Your task to perform on an android device: turn on notifications settings in the gmail app Image 0: 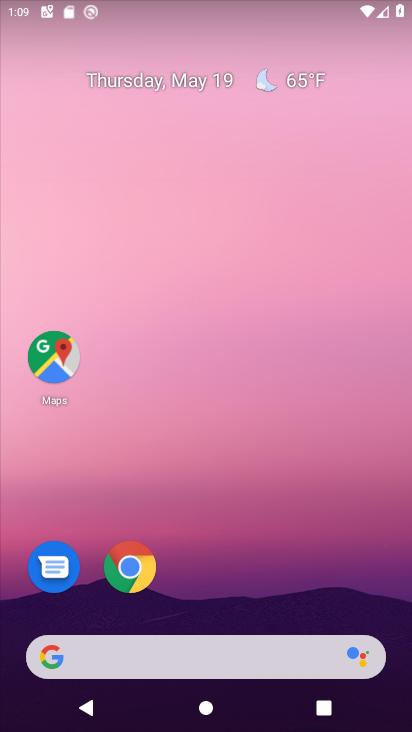
Step 0: click (303, 526)
Your task to perform on an android device: turn on notifications settings in the gmail app Image 1: 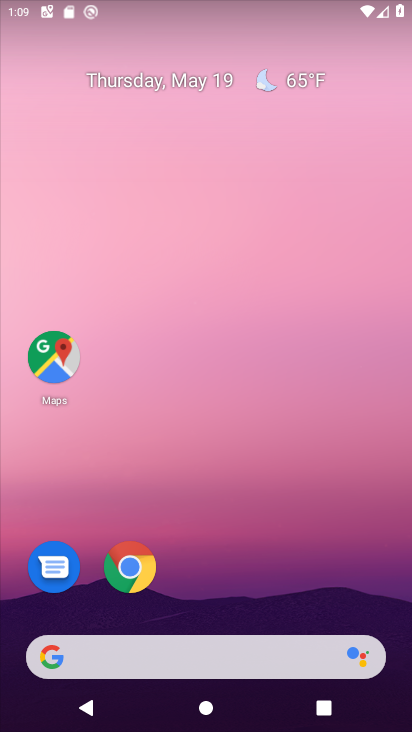
Step 1: drag from (303, 526) to (339, 27)
Your task to perform on an android device: turn on notifications settings in the gmail app Image 2: 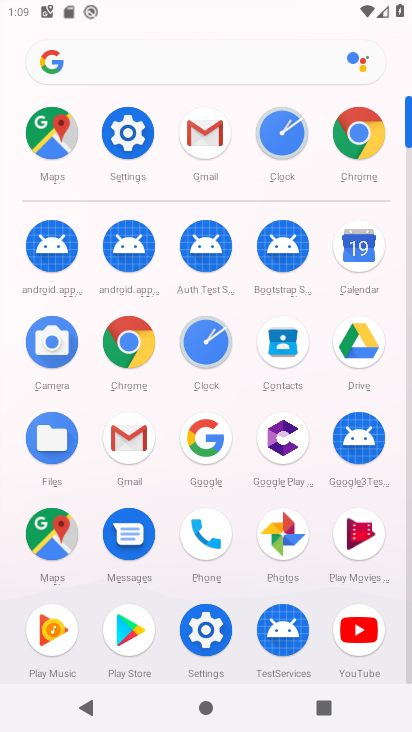
Step 2: click (202, 140)
Your task to perform on an android device: turn on notifications settings in the gmail app Image 3: 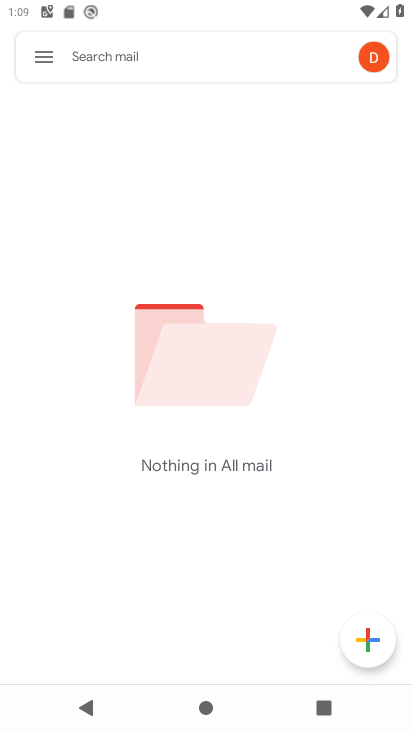
Step 3: click (35, 51)
Your task to perform on an android device: turn on notifications settings in the gmail app Image 4: 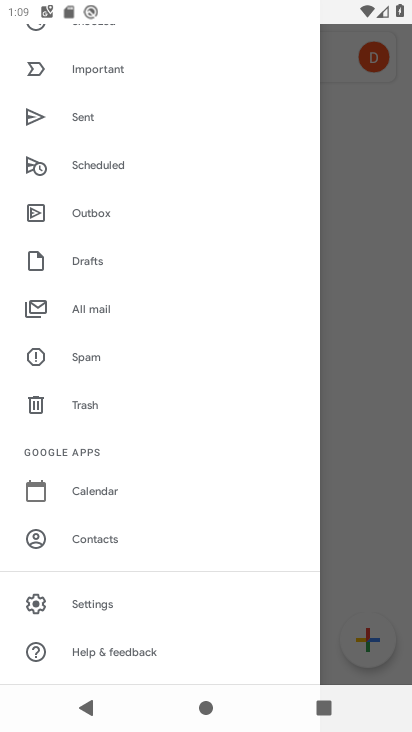
Step 4: click (90, 595)
Your task to perform on an android device: turn on notifications settings in the gmail app Image 5: 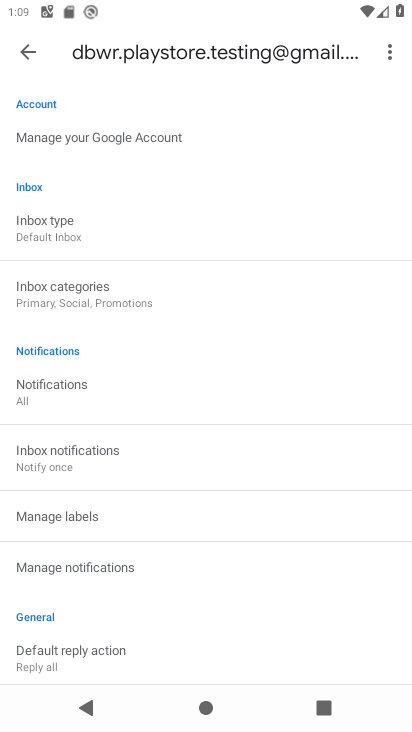
Step 5: click (128, 390)
Your task to perform on an android device: turn on notifications settings in the gmail app Image 6: 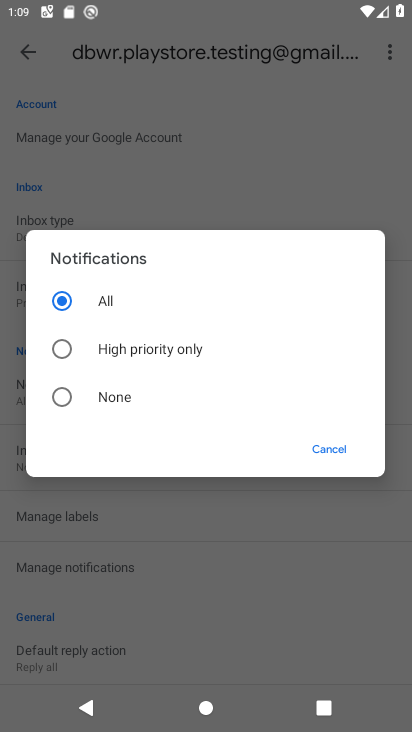
Step 6: click (102, 295)
Your task to perform on an android device: turn on notifications settings in the gmail app Image 7: 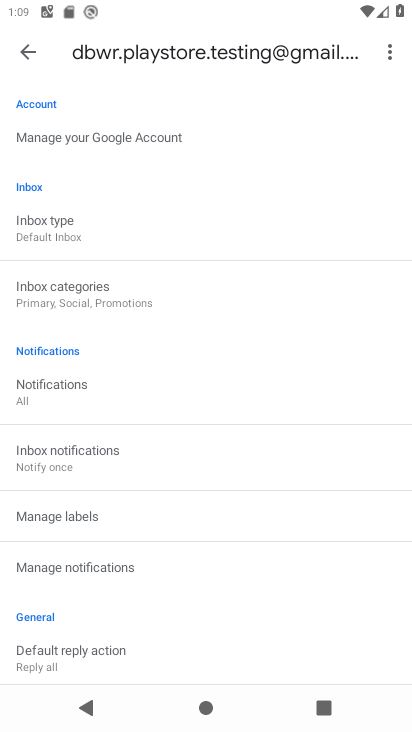
Step 7: drag from (107, 507) to (103, 255)
Your task to perform on an android device: turn on notifications settings in the gmail app Image 8: 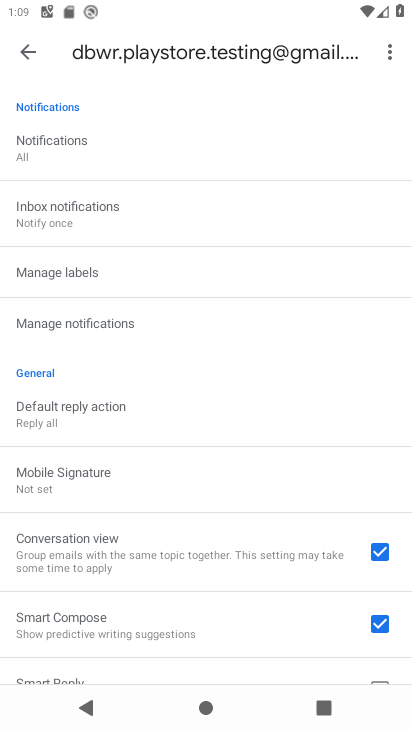
Step 8: click (101, 317)
Your task to perform on an android device: turn on notifications settings in the gmail app Image 9: 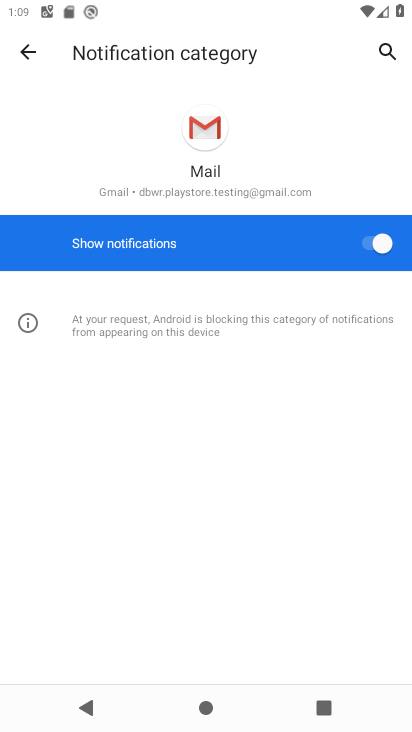
Step 9: task complete